Your task to perform on an android device: Open Chrome and go to settings Image 0: 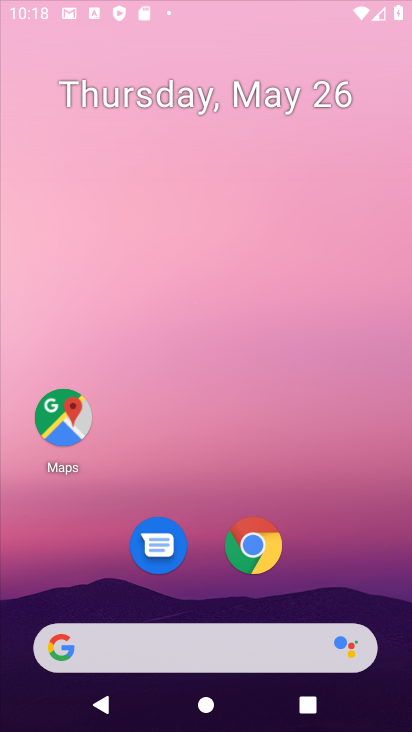
Step 0: press home button
Your task to perform on an android device: Open Chrome and go to settings Image 1: 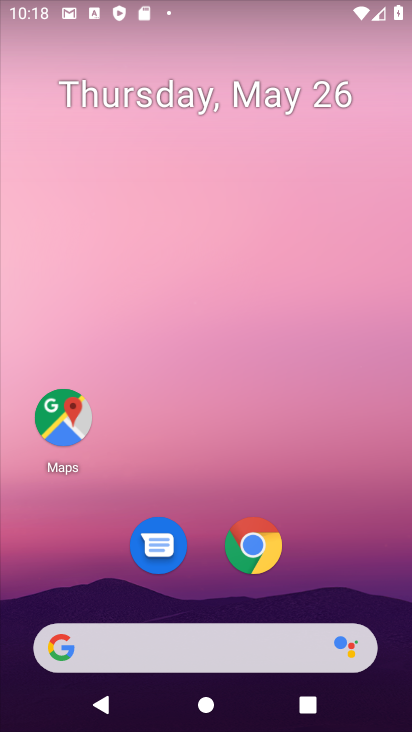
Step 1: click (256, 538)
Your task to perform on an android device: Open Chrome and go to settings Image 2: 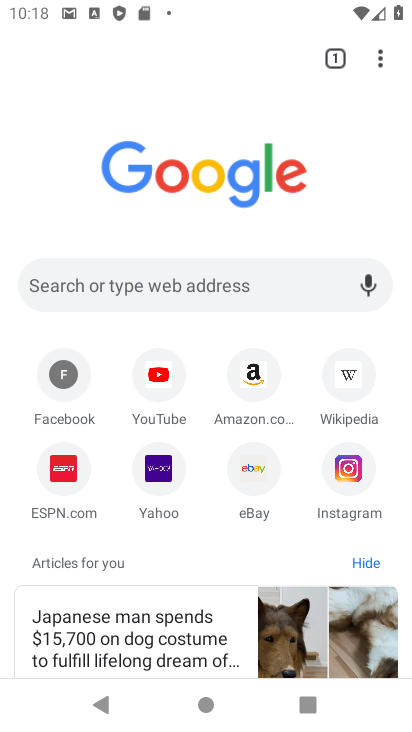
Step 2: task complete